Your task to perform on an android device: Open settings Image 0: 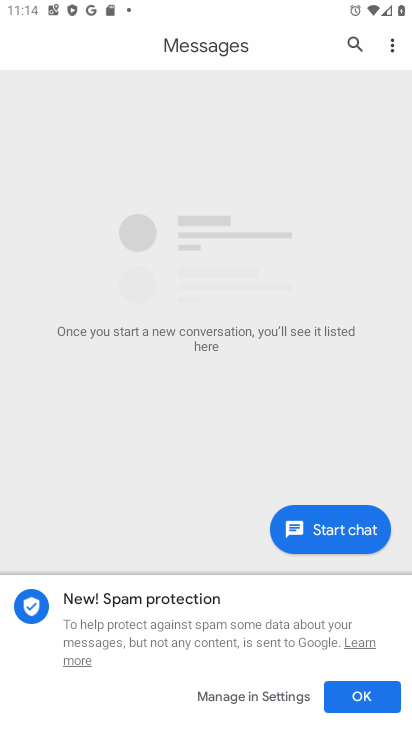
Step 0: press home button
Your task to perform on an android device: Open settings Image 1: 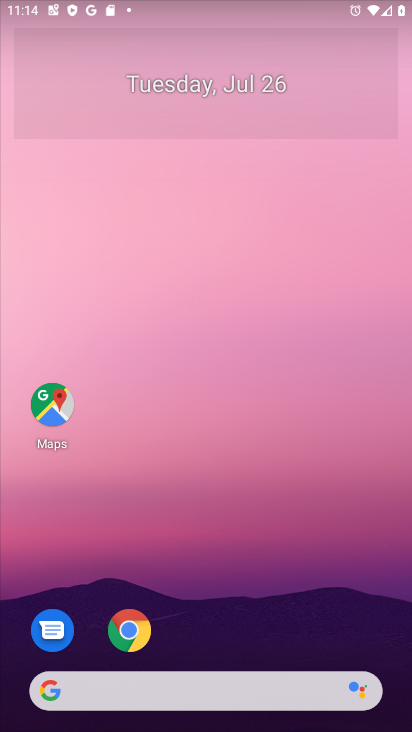
Step 1: drag from (205, 483) to (261, 41)
Your task to perform on an android device: Open settings Image 2: 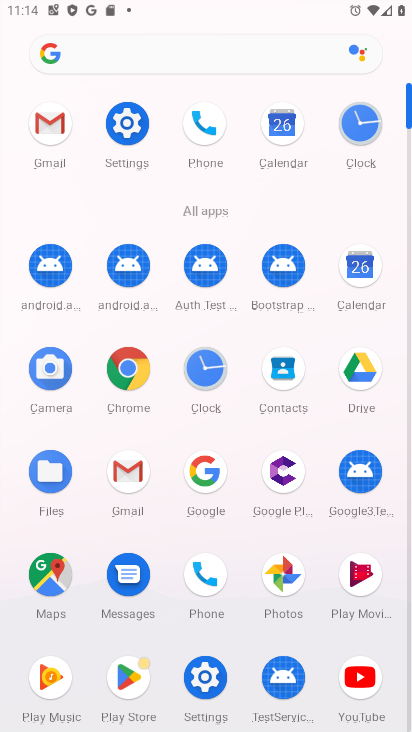
Step 2: click (127, 125)
Your task to perform on an android device: Open settings Image 3: 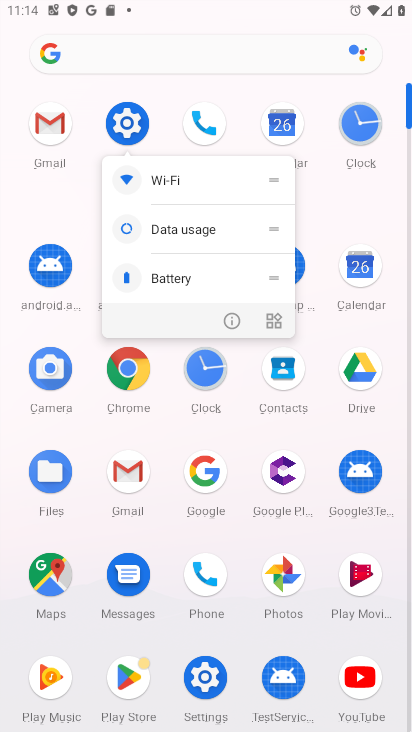
Step 3: click (129, 122)
Your task to perform on an android device: Open settings Image 4: 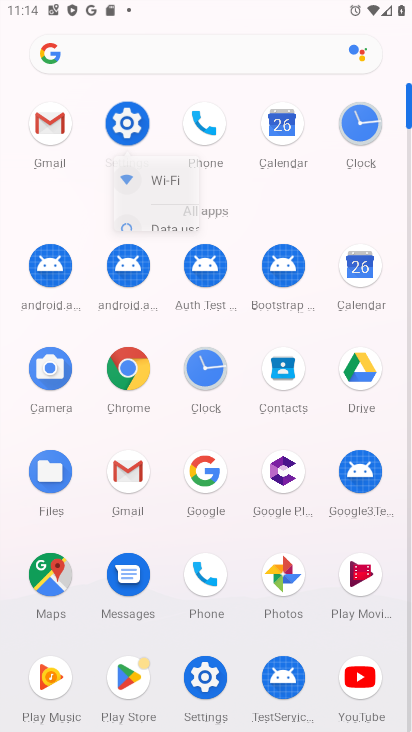
Step 4: click (129, 122)
Your task to perform on an android device: Open settings Image 5: 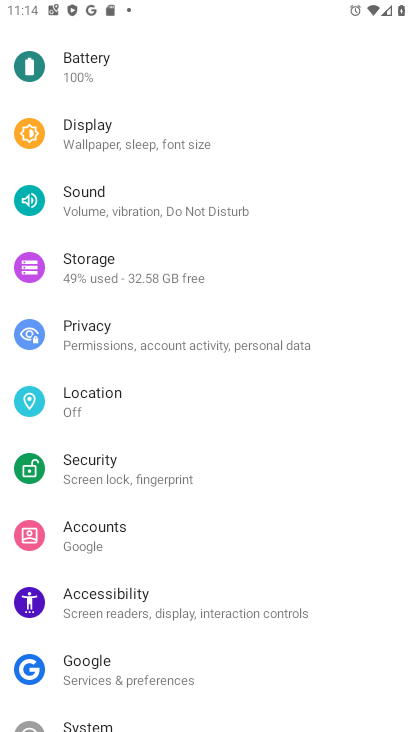
Step 5: task complete